Your task to perform on an android device: change text size in settings app Image 0: 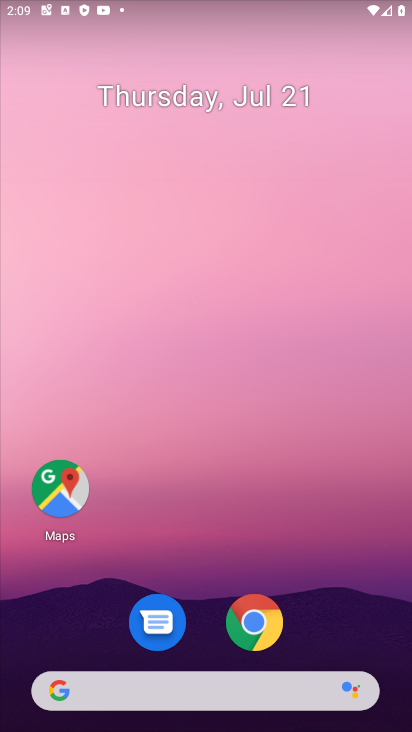
Step 0: drag from (268, 693) to (248, 170)
Your task to perform on an android device: change text size in settings app Image 1: 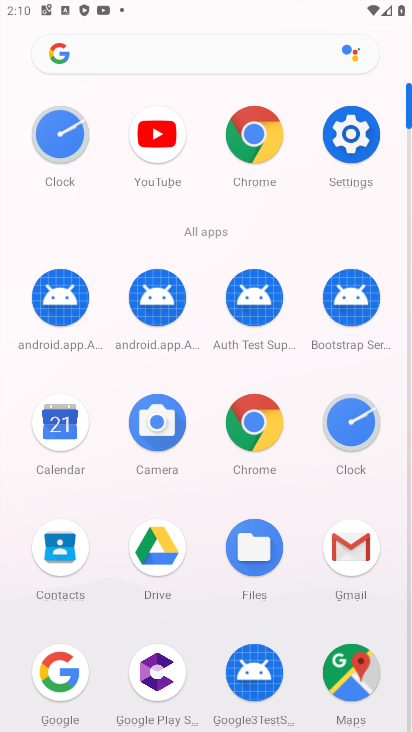
Step 1: click (335, 133)
Your task to perform on an android device: change text size in settings app Image 2: 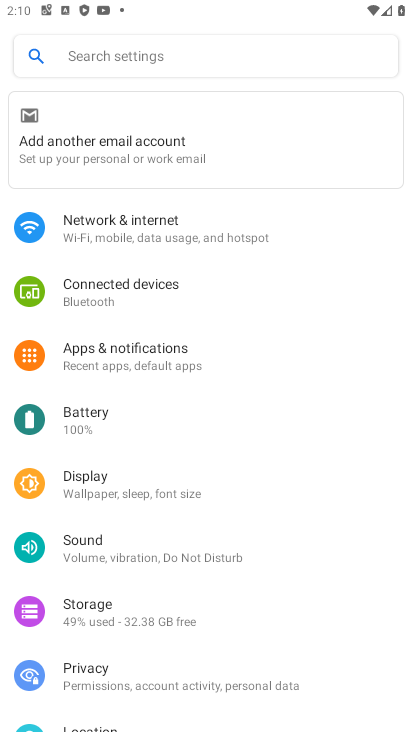
Step 2: click (122, 56)
Your task to perform on an android device: change text size in settings app Image 3: 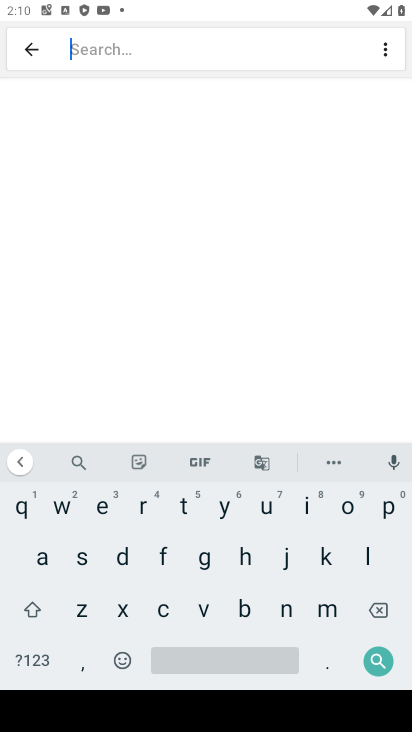
Step 3: click (78, 554)
Your task to perform on an android device: change text size in settings app Image 4: 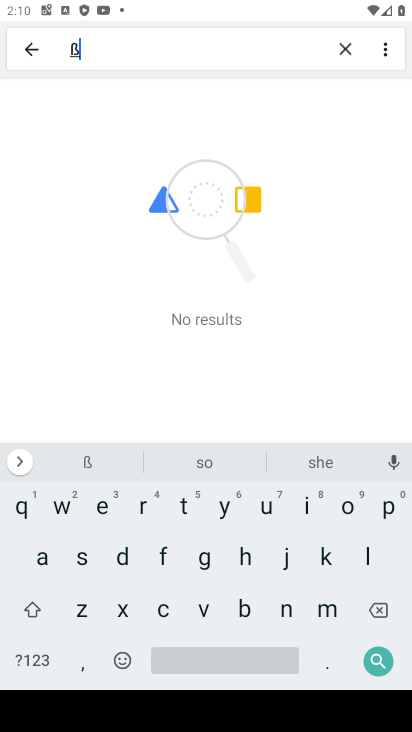
Step 4: click (302, 511)
Your task to perform on an android device: change text size in settings app Image 5: 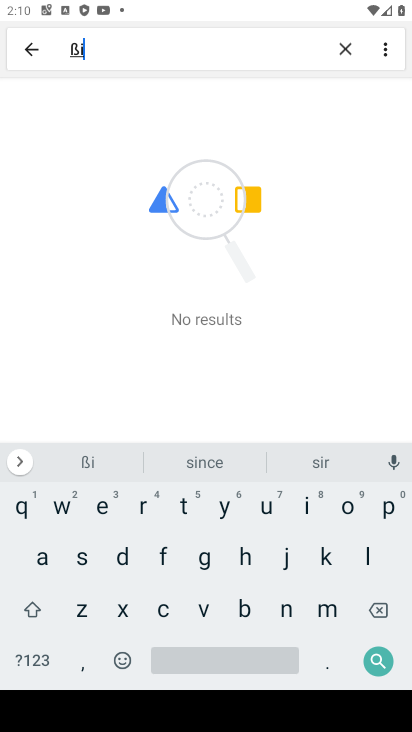
Step 5: click (352, 48)
Your task to perform on an android device: change text size in settings app Image 6: 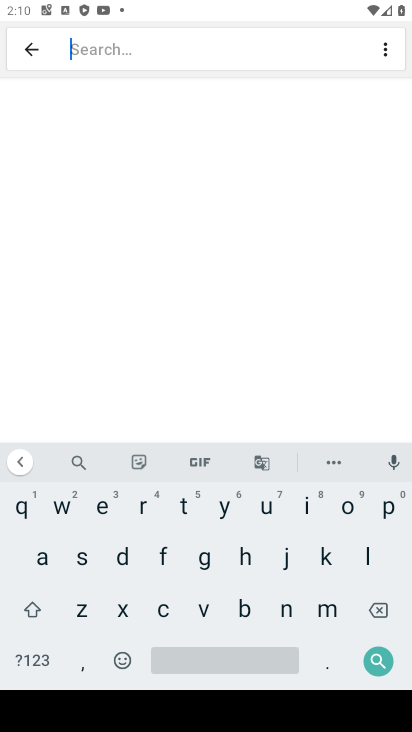
Step 6: click (74, 557)
Your task to perform on an android device: change text size in settings app Image 7: 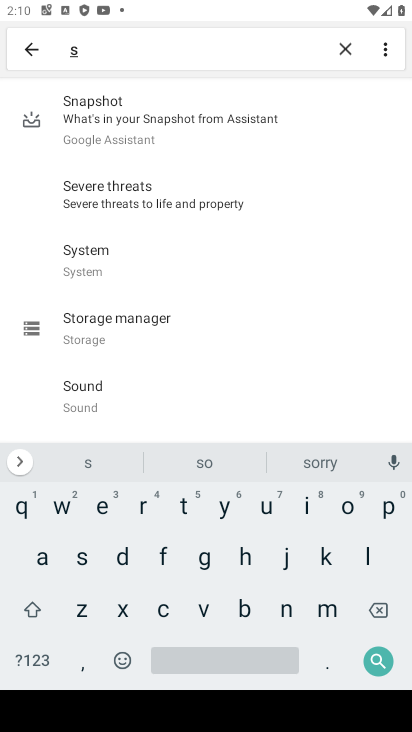
Step 7: click (307, 512)
Your task to perform on an android device: change text size in settings app Image 8: 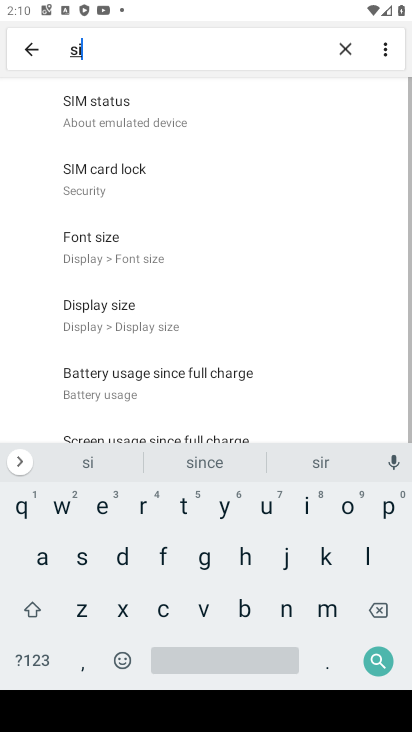
Step 8: click (78, 608)
Your task to perform on an android device: change text size in settings app Image 9: 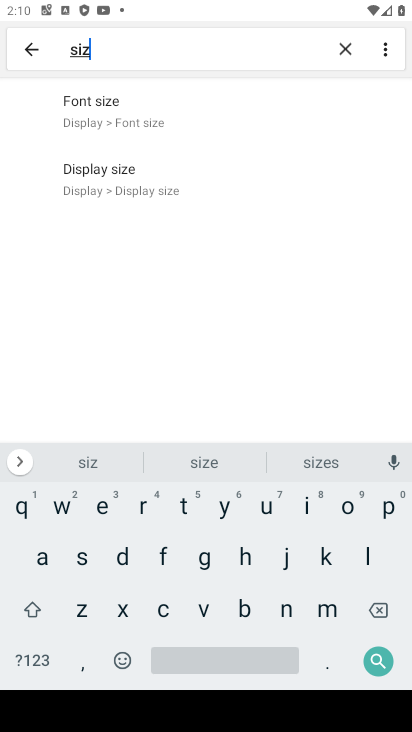
Step 9: click (108, 115)
Your task to perform on an android device: change text size in settings app Image 10: 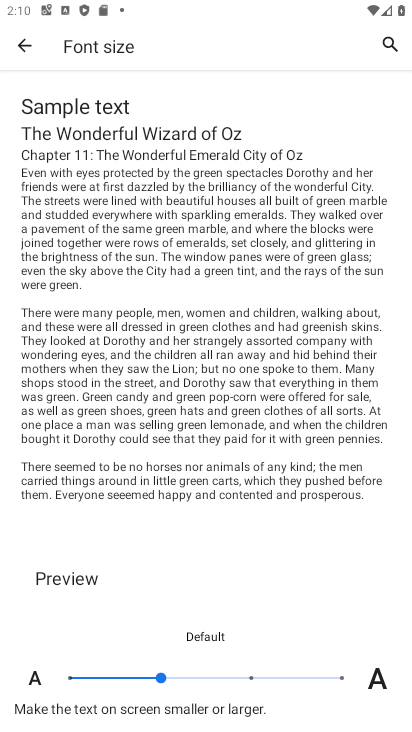
Step 10: click (250, 653)
Your task to perform on an android device: change text size in settings app Image 11: 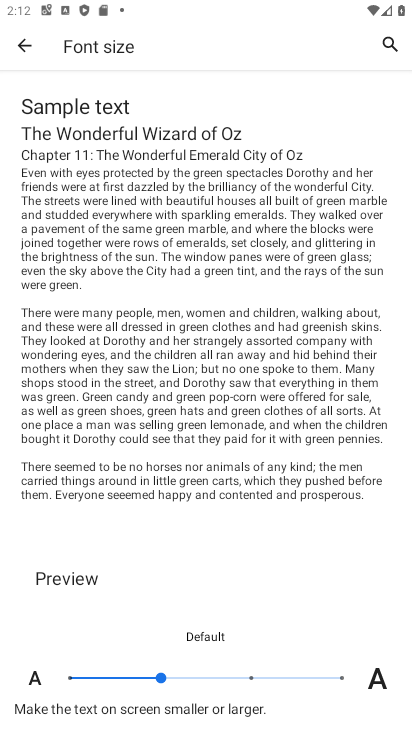
Step 11: task complete